Your task to perform on an android device: manage bookmarks in the chrome app Image 0: 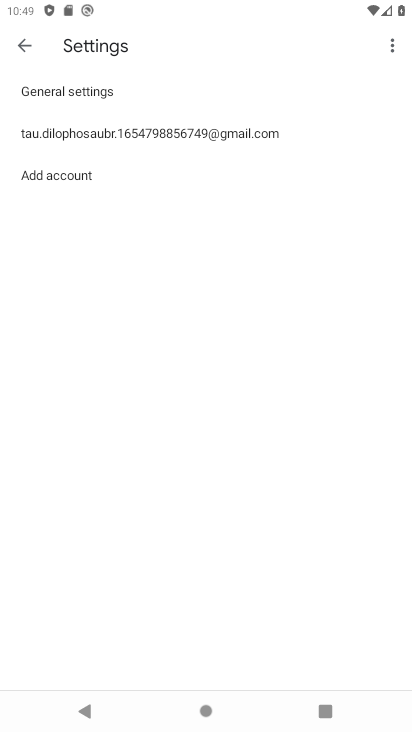
Step 0: press home button
Your task to perform on an android device: manage bookmarks in the chrome app Image 1: 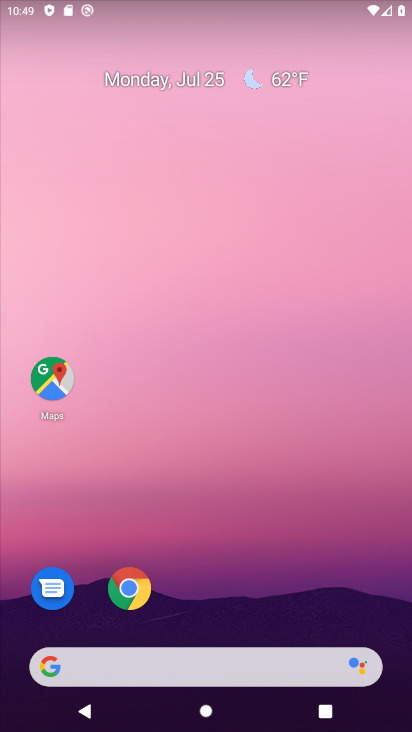
Step 1: click (134, 589)
Your task to perform on an android device: manage bookmarks in the chrome app Image 2: 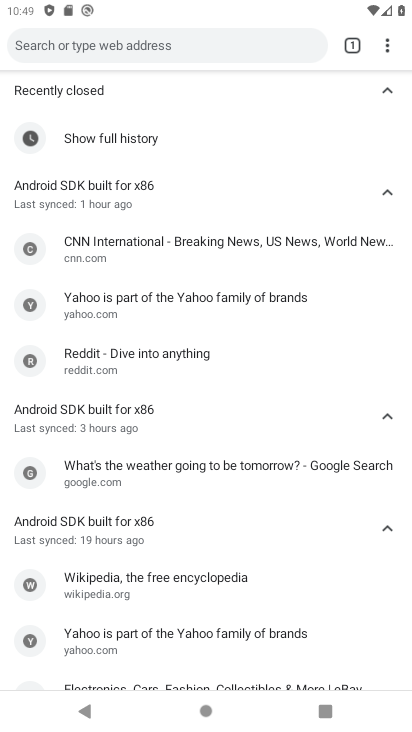
Step 2: click (349, 45)
Your task to perform on an android device: manage bookmarks in the chrome app Image 3: 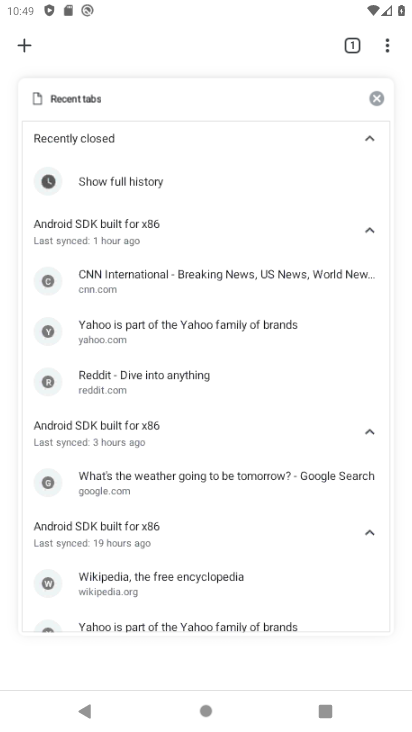
Step 3: click (371, 103)
Your task to perform on an android device: manage bookmarks in the chrome app Image 4: 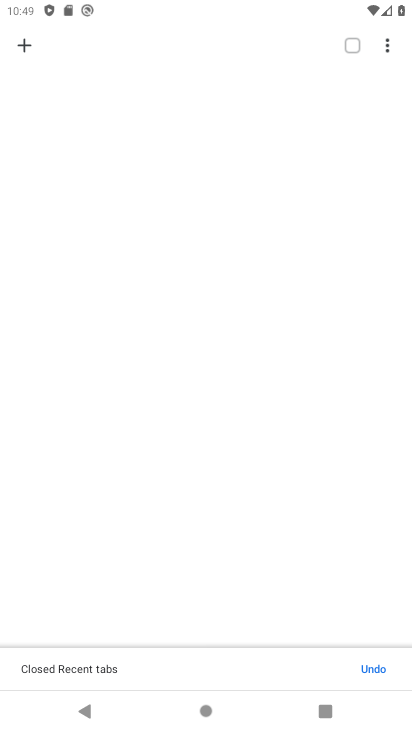
Step 4: click (19, 46)
Your task to perform on an android device: manage bookmarks in the chrome app Image 5: 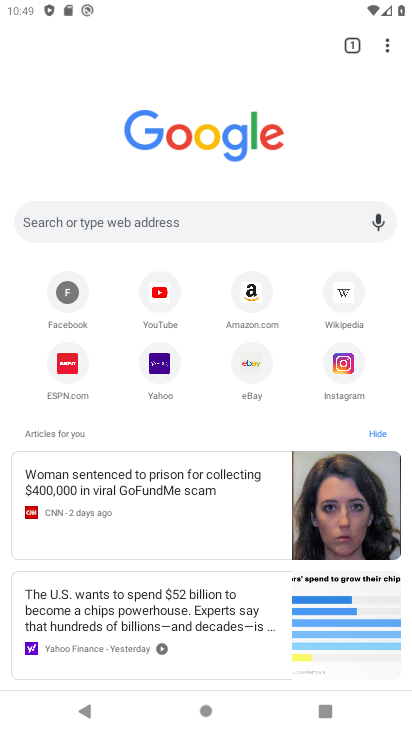
Step 5: click (391, 48)
Your task to perform on an android device: manage bookmarks in the chrome app Image 6: 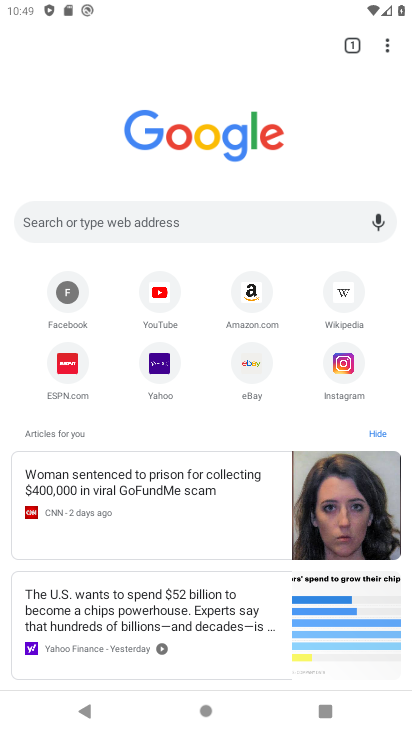
Step 6: click (386, 47)
Your task to perform on an android device: manage bookmarks in the chrome app Image 7: 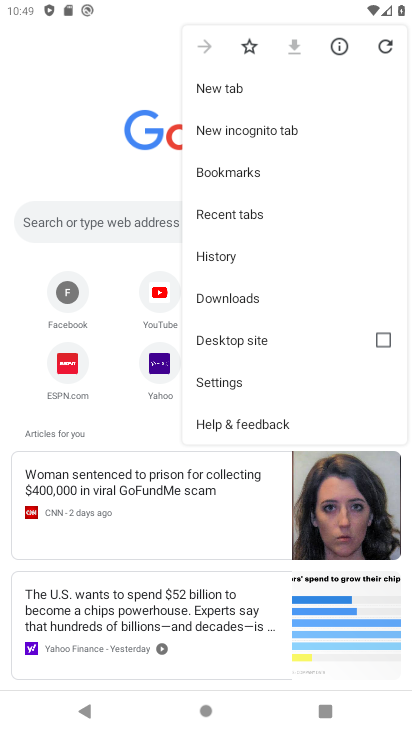
Step 7: click (257, 175)
Your task to perform on an android device: manage bookmarks in the chrome app Image 8: 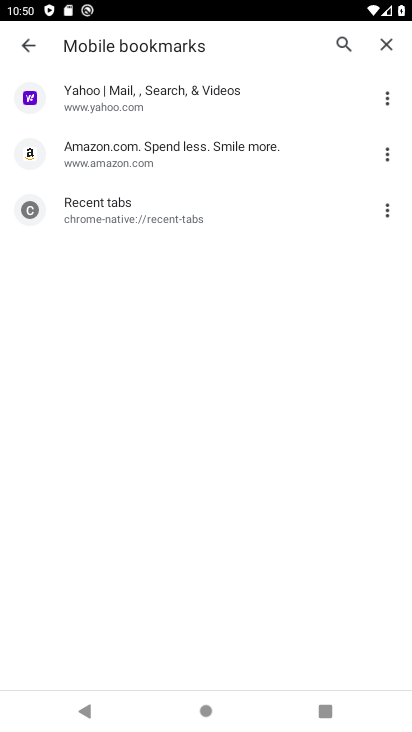
Step 8: click (388, 212)
Your task to perform on an android device: manage bookmarks in the chrome app Image 9: 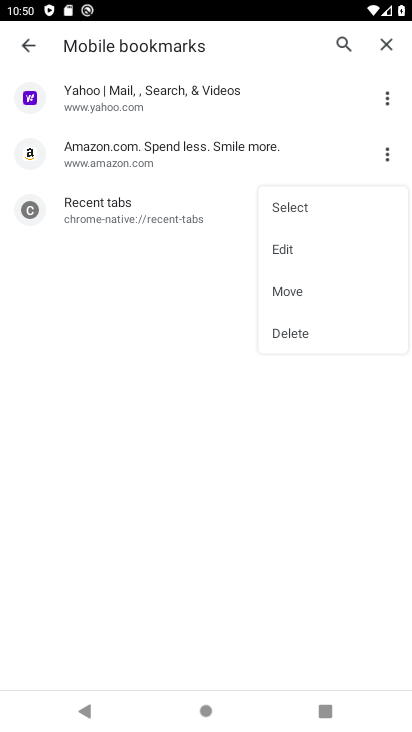
Step 9: click (289, 339)
Your task to perform on an android device: manage bookmarks in the chrome app Image 10: 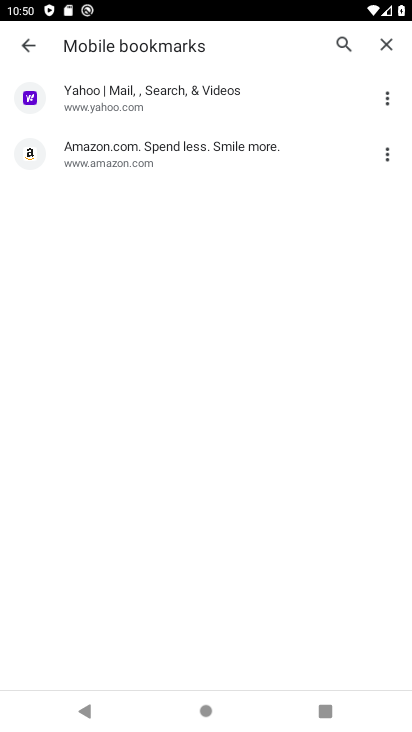
Step 10: task complete